Your task to perform on an android device: toggle javascript in the chrome app Image 0: 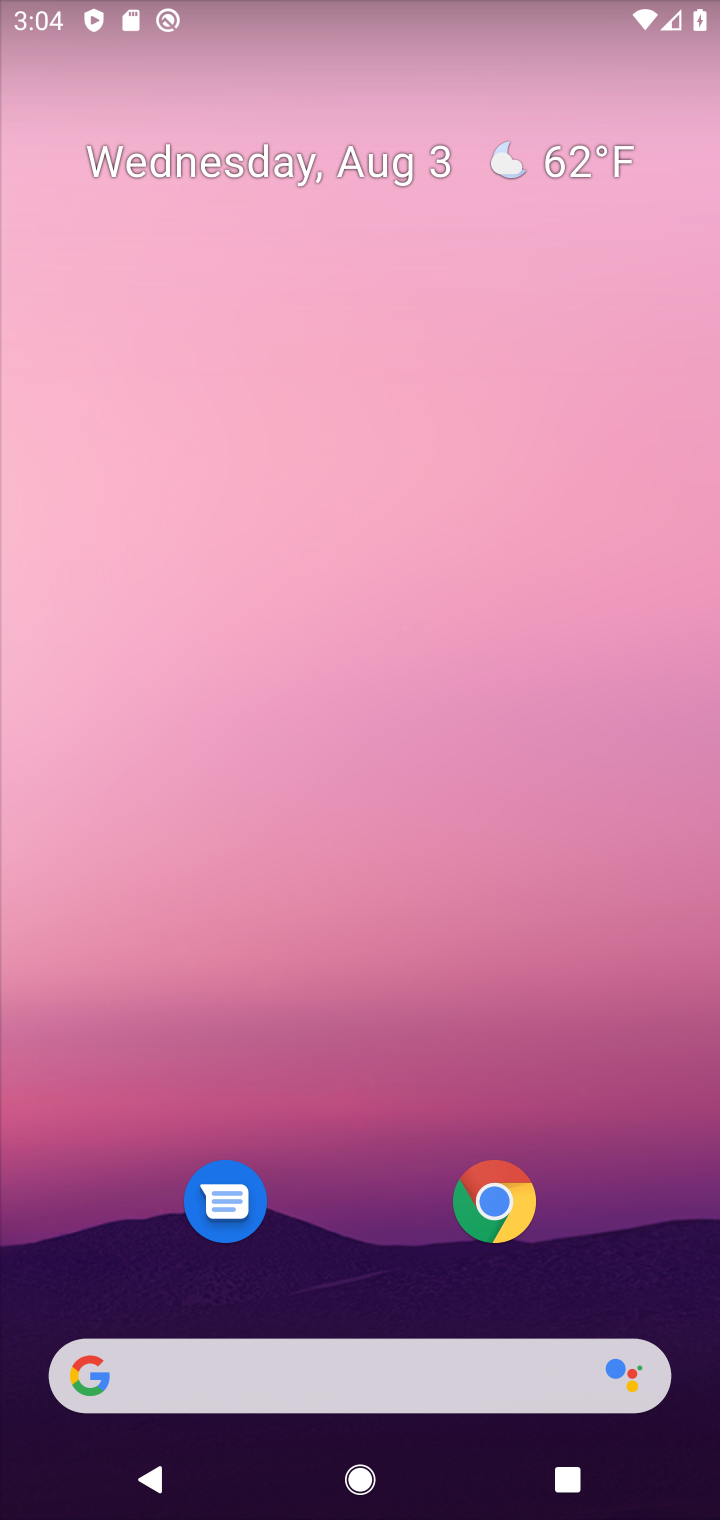
Step 0: click (475, 1201)
Your task to perform on an android device: toggle javascript in the chrome app Image 1: 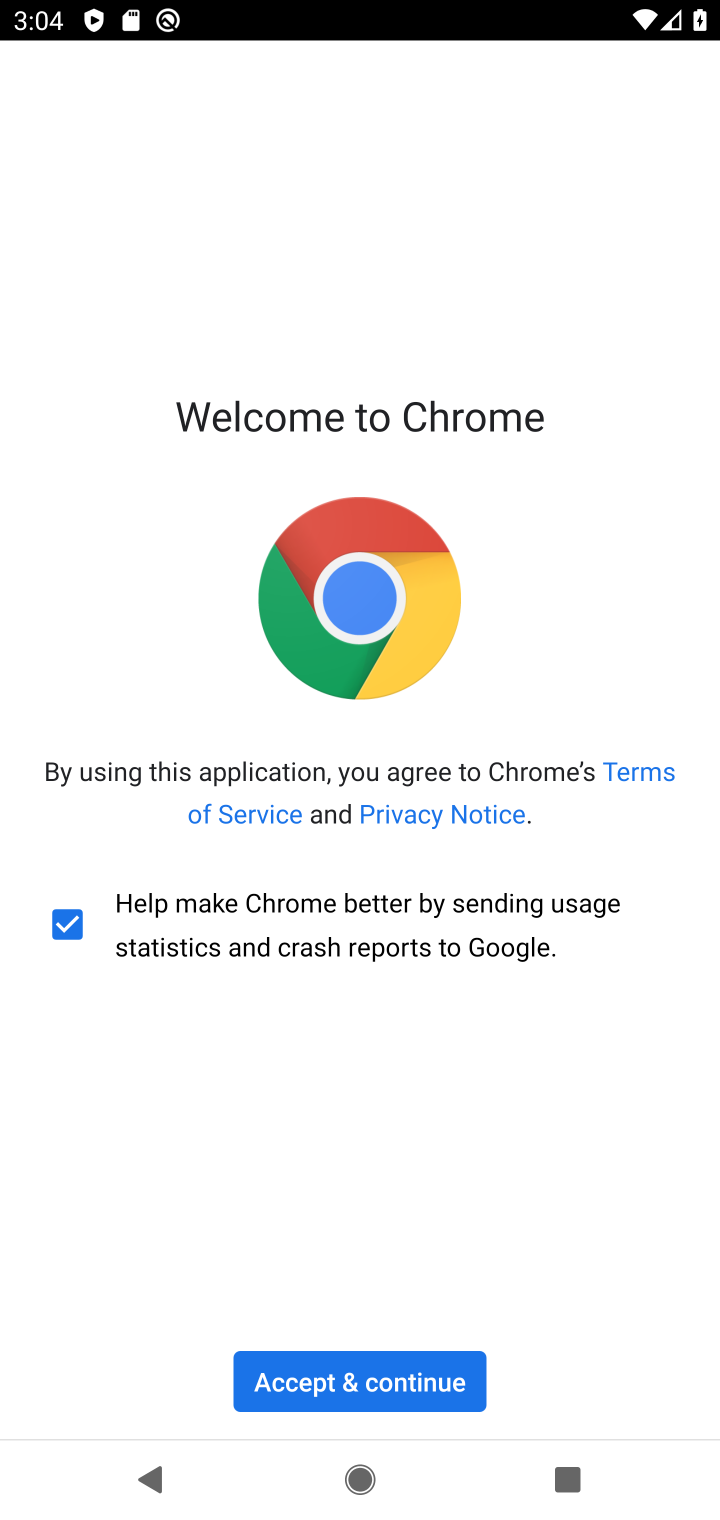
Step 1: click (372, 1390)
Your task to perform on an android device: toggle javascript in the chrome app Image 2: 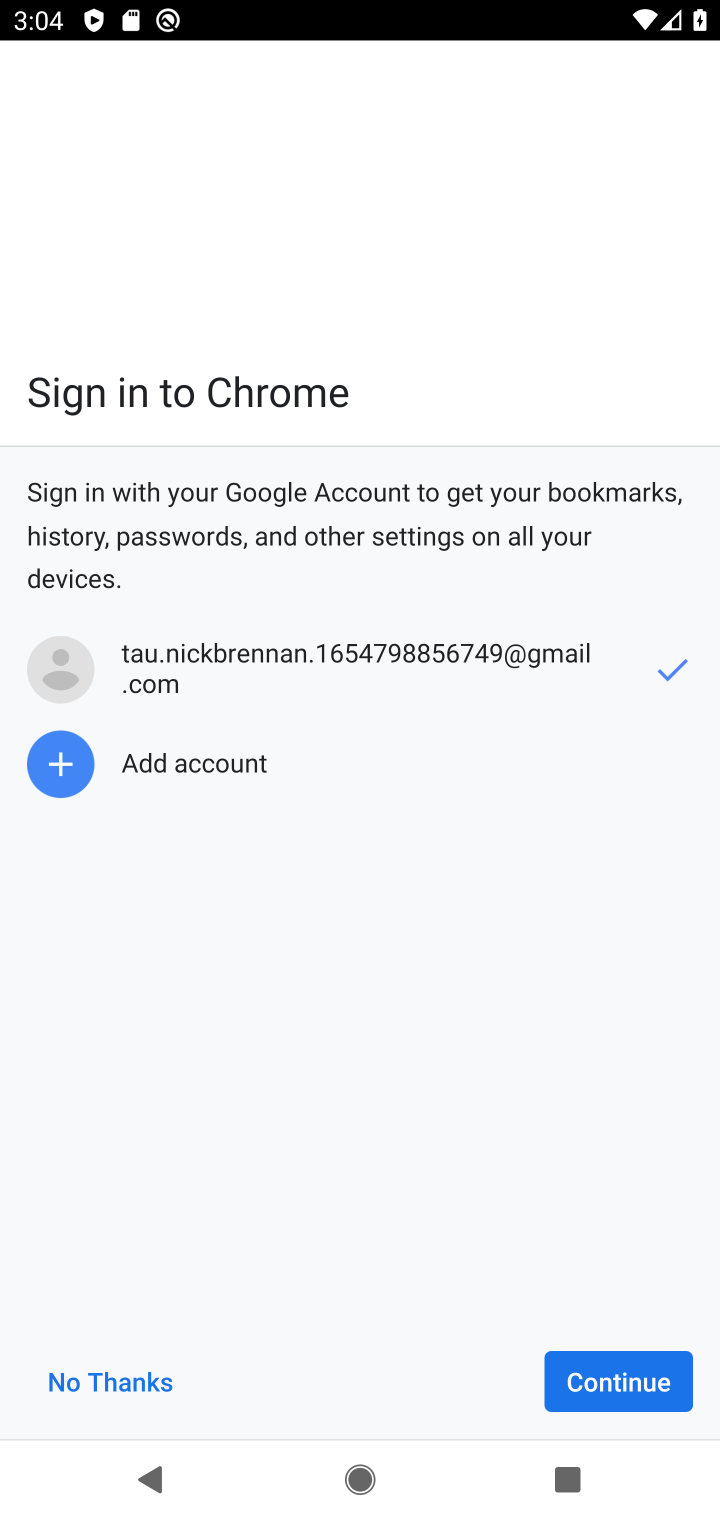
Step 2: click (640, 1389)
Your task to perform on an android device: toggle javascript in the chrome app Image 3: 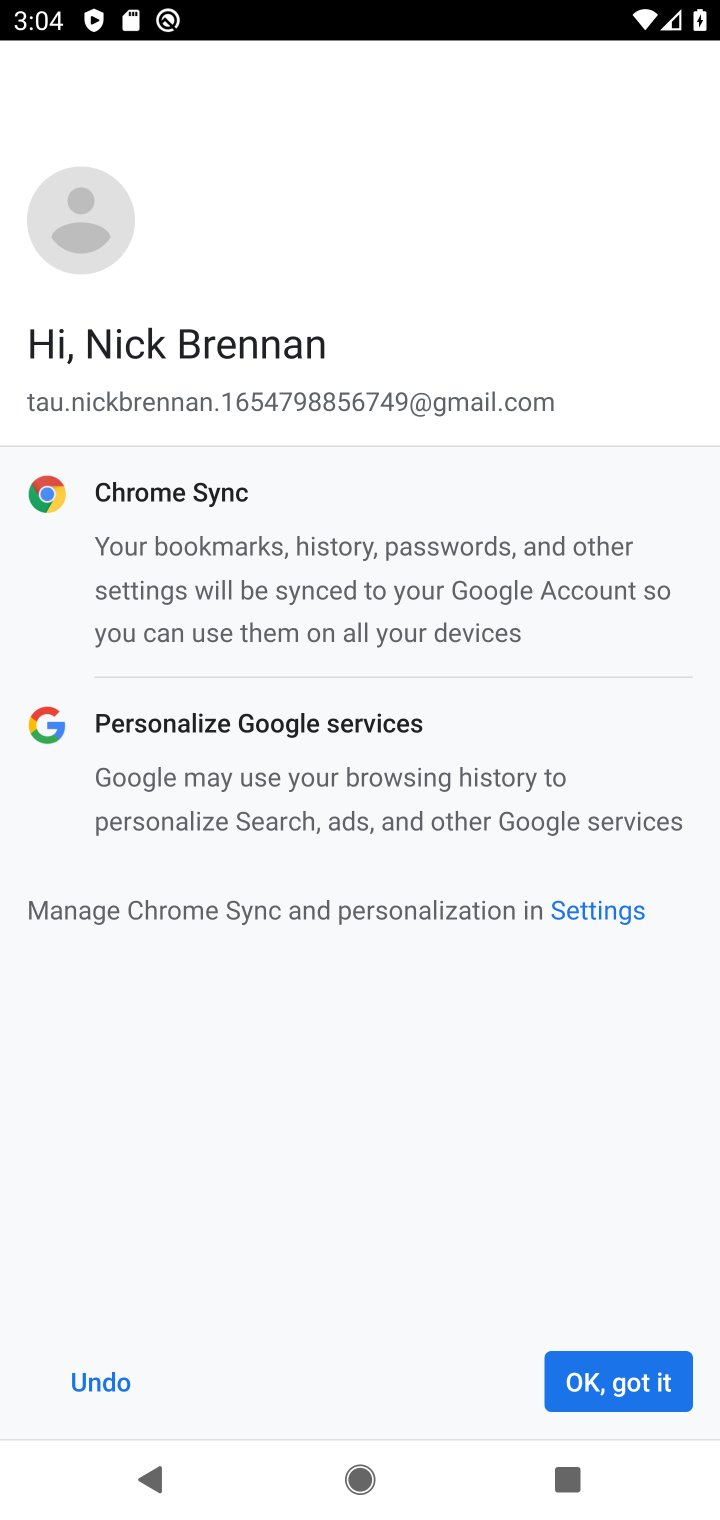
Step 3: click (626, 1389)
Your task to perform on an android device: toggle javascript in the chrome app Image 4: 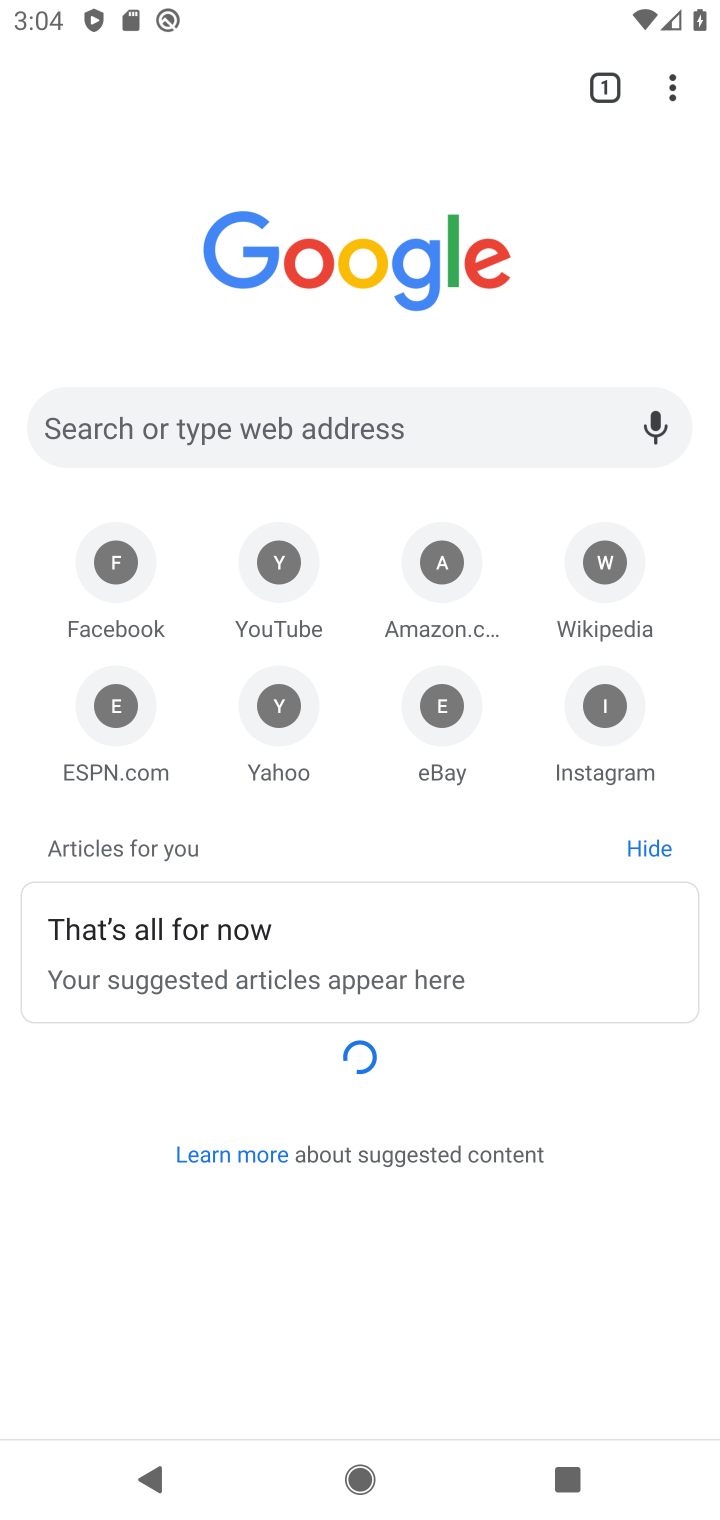
Step 4: click (677, 80)
Your task to perform on an android device: toggle javascript in the chrome app Image 5: 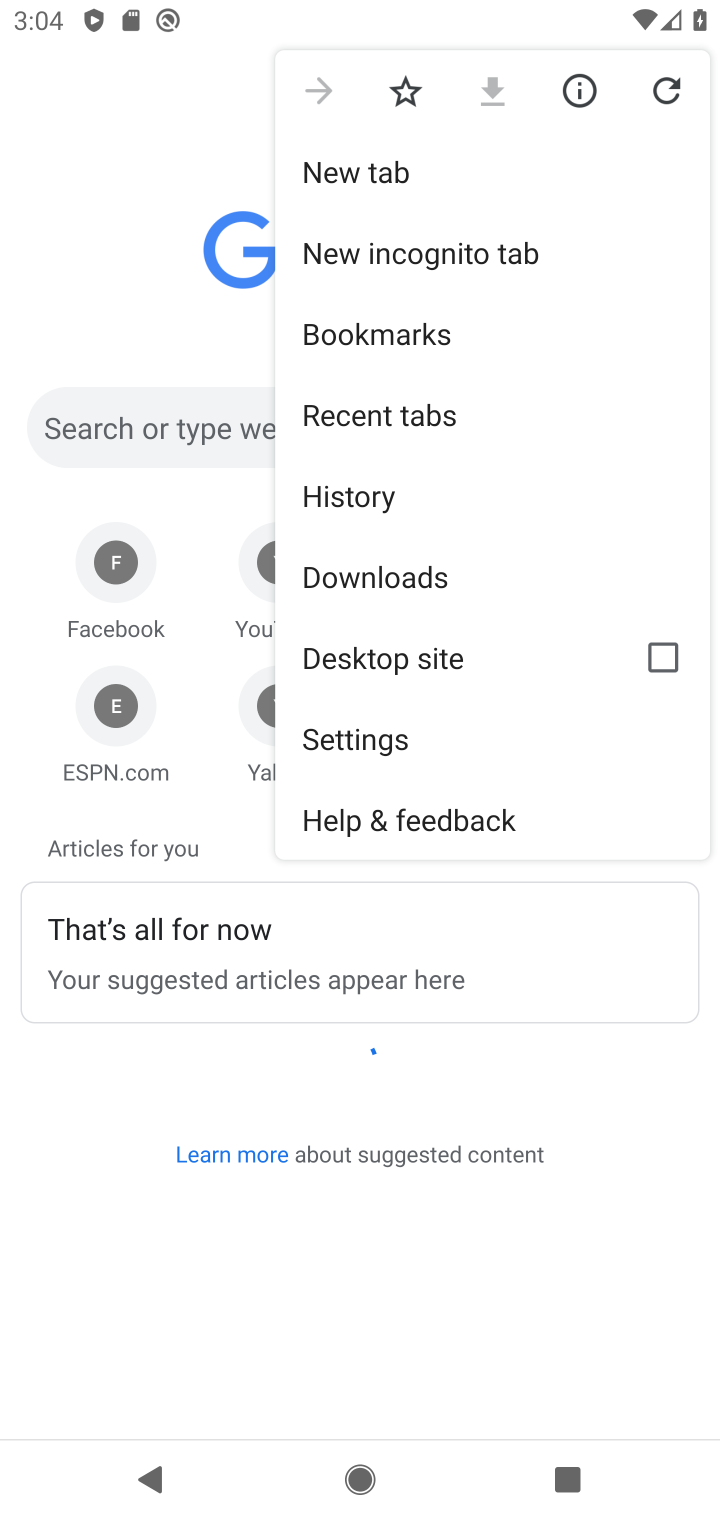
Step 5: click (371, 739)
Your task to perform on an android device: toggle javascript in the chrome app Image 6: 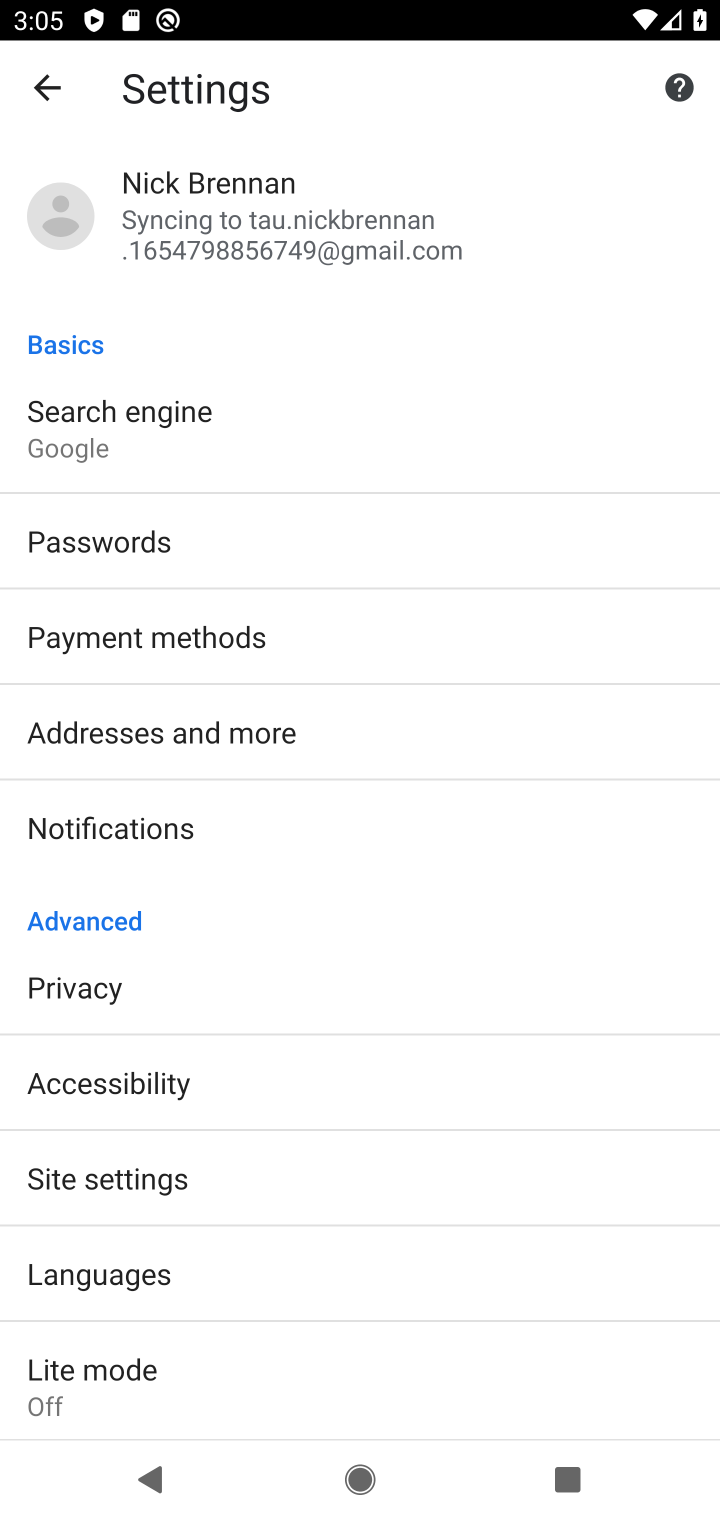
Step 6: click (224, 1161)
Your task to perform on an android device: toggle javascript in the chrome app Image 7: 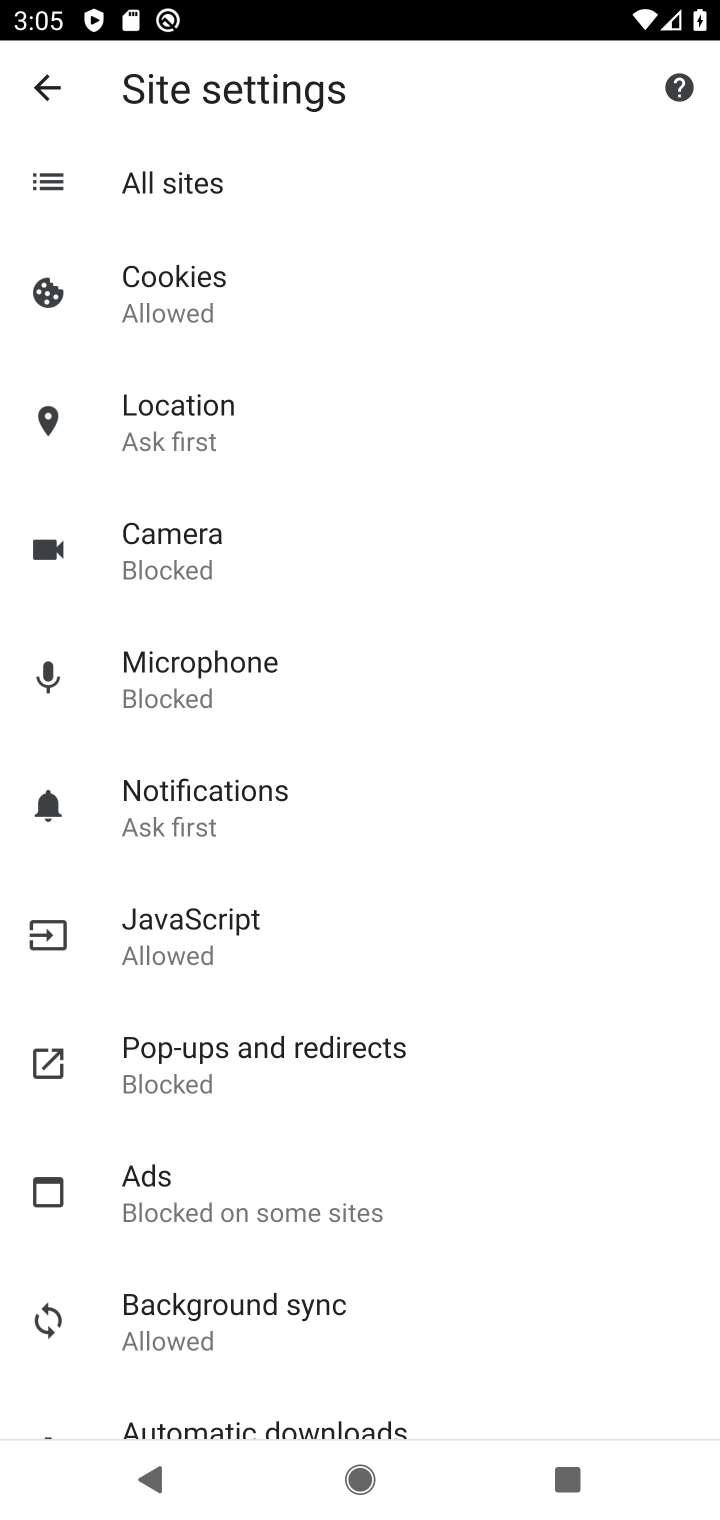
Step 7: click (254, 931)
Your task to perform on an android device: toggle javascript in the chrome app Image 8: 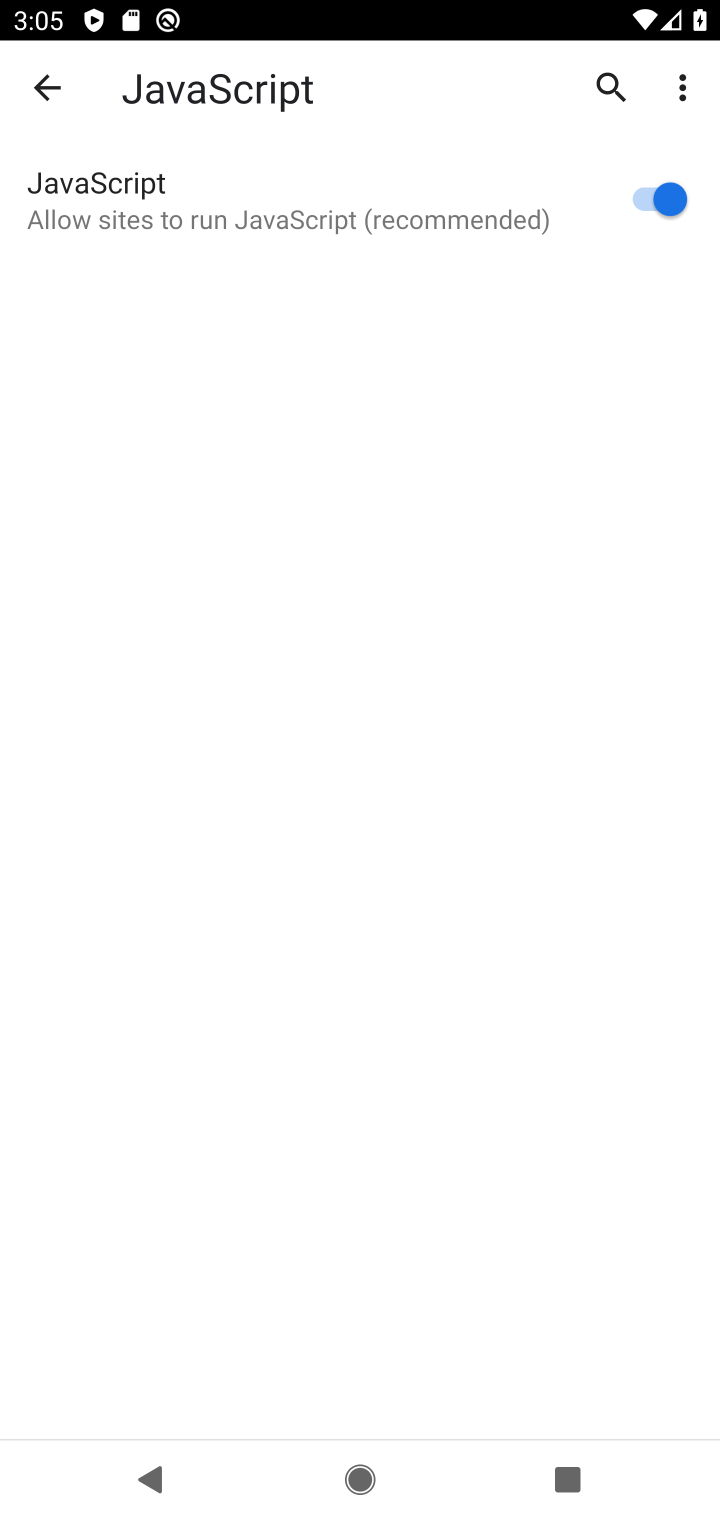
Step 8: click (667, 189)
Your task to perform on an android device: toggle javascript in the chrome app Image 9: 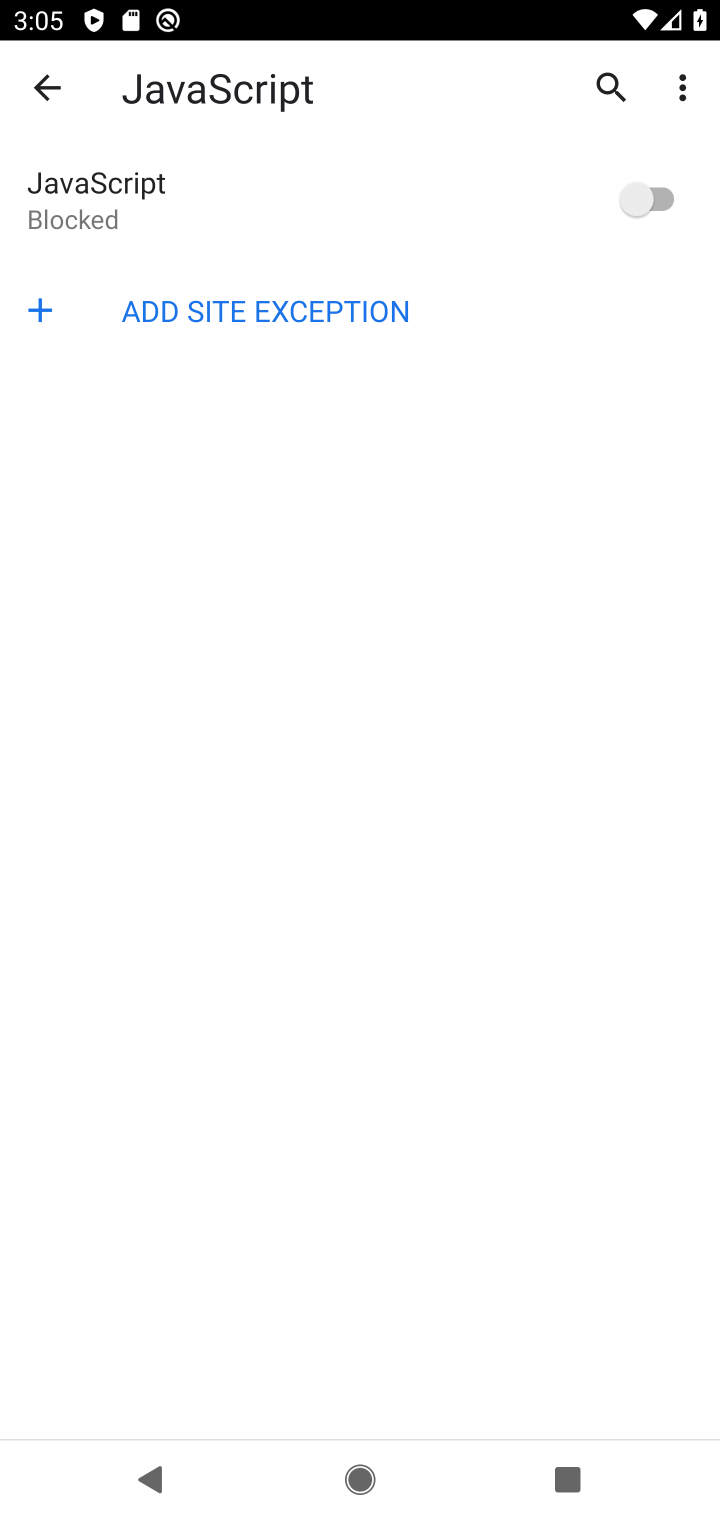
Step 9: task complete